Your task to perform on an android device: see creations saved in the google photos Image 0: 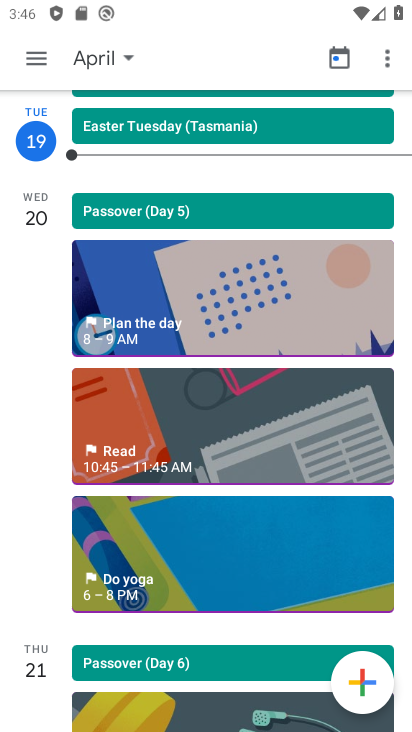
Step 0: press home button
Your task to perform on an android device: see creations saved in the google photos Image 1: 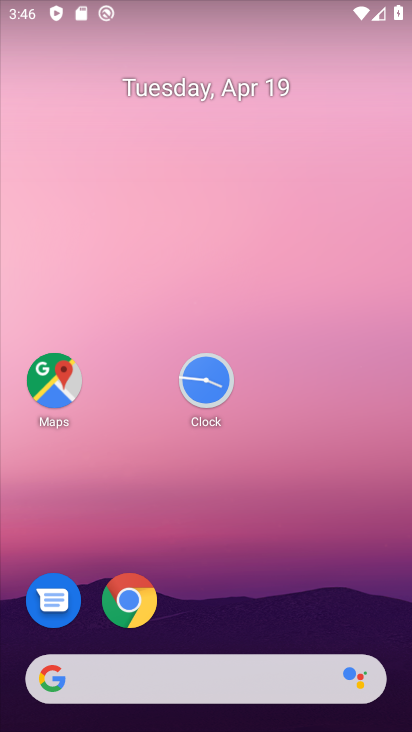
Step 1: drag from (232, 630) to (143, 143)
Your task to perform on an android device: see creations saved in the google photos Image 2: 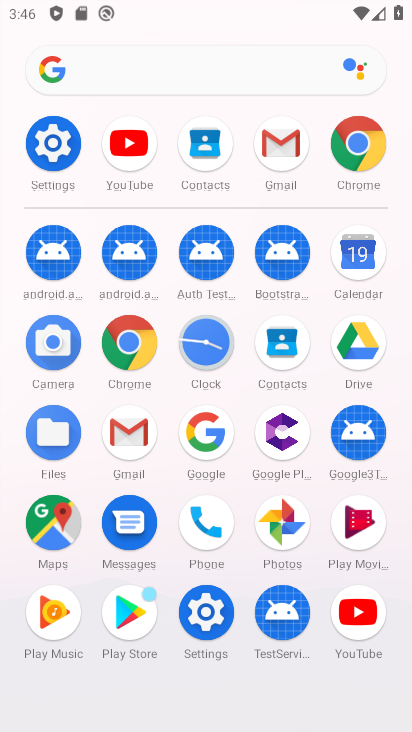
Step 2: click (283, 525)
Your task to perform on an android device: see creations saved in the google photos Image 3: 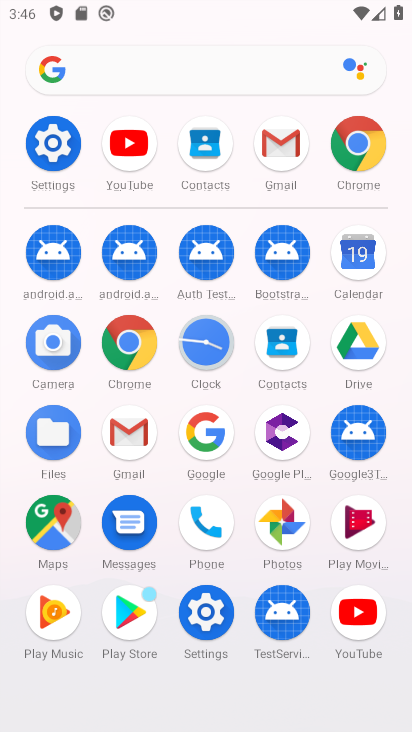
Step 3: click (283, 525)
Your task to perform on an android device: see creations saved in the google photos Image 4: 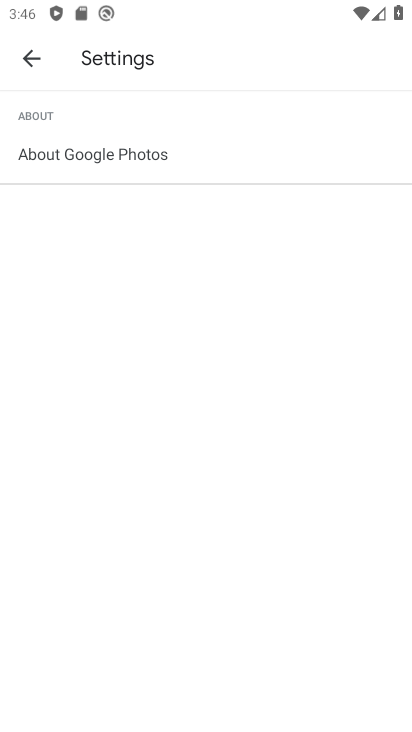
Step 4: click (28, 58)
Your task to perform on an android device: see creations saved in the google photos Image 5: 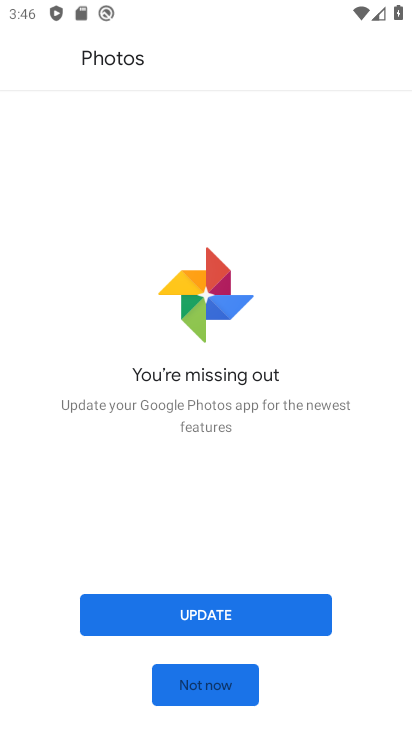
Step 5: click (207, 615)
Your task to perform on an android device: see creations saved in the google photos Image 6: 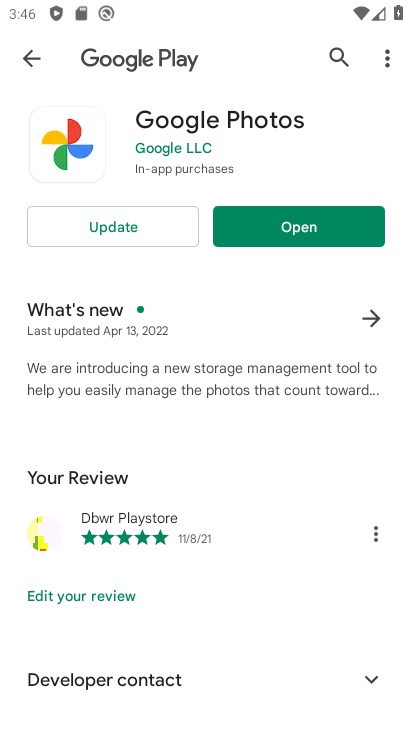
Step 6: click (108, 224)
Your task to perform on an android device: see creations saved in the google photos Image 7: 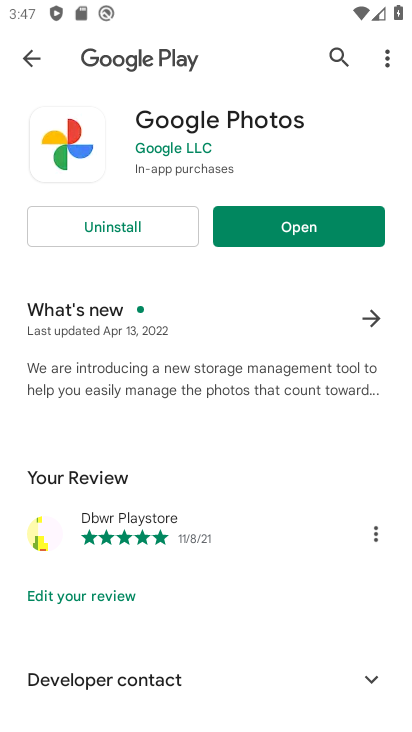
Step 7: click (303, 221)
Your task to perform on an android device: see creations saved in the google photos Image 8: 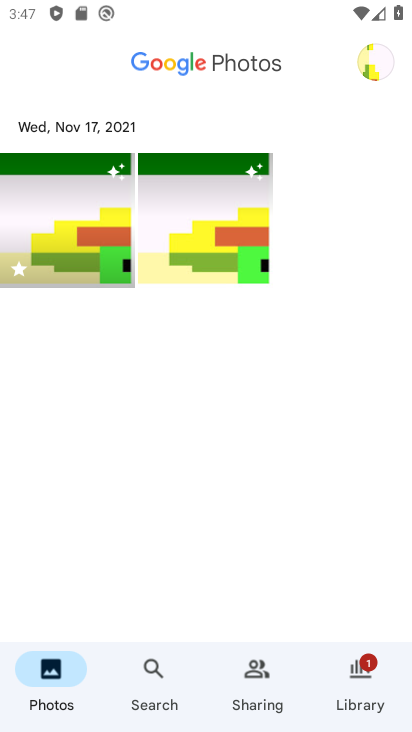
Step 8: task complete